Your task to perform on an android device: Open internet settings Image 0: 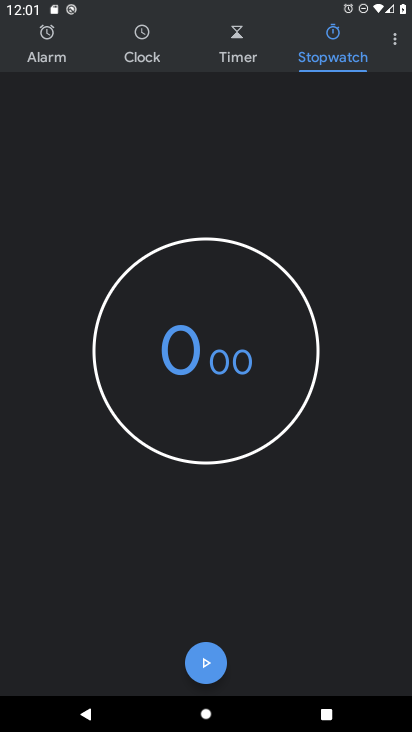
Step 0: press home button
Your task to perform on an android device: Open internet settings Image 1: 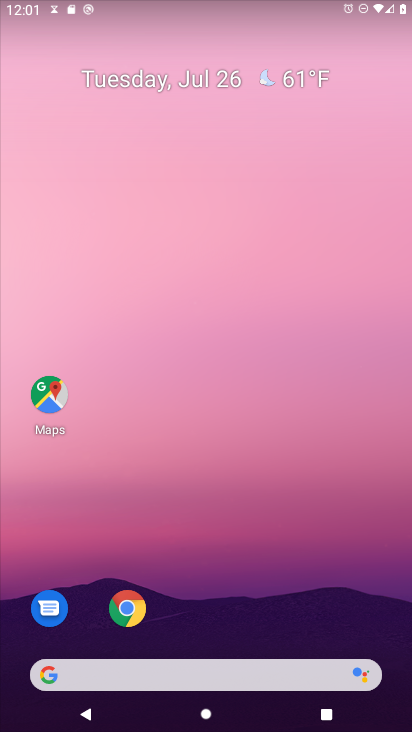
Step 1: drag from (197, 678) to (213, 56)
Your task to perform on an android device: Open internet settings Image 2: 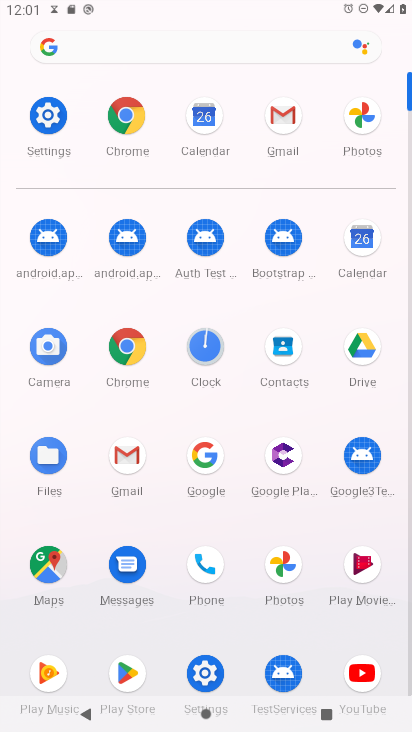
Step 2: click (49, 115)
Your task to perform on an android device: Open internet settings Image 3: 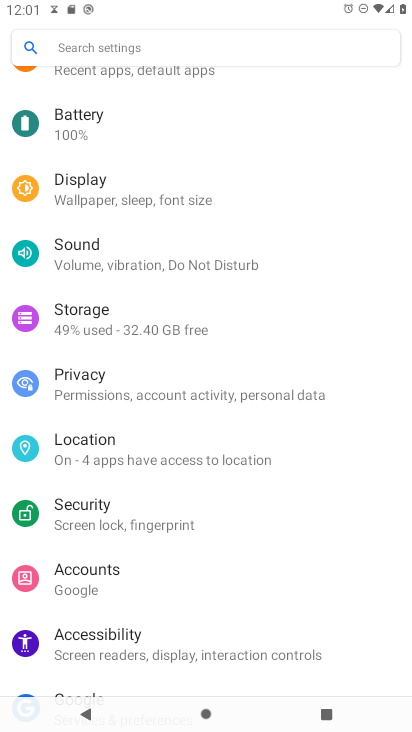
Step 3: drag from (153, 149) to (127, 420)
Your task to perform on an android device: Open internet settings Image 4: 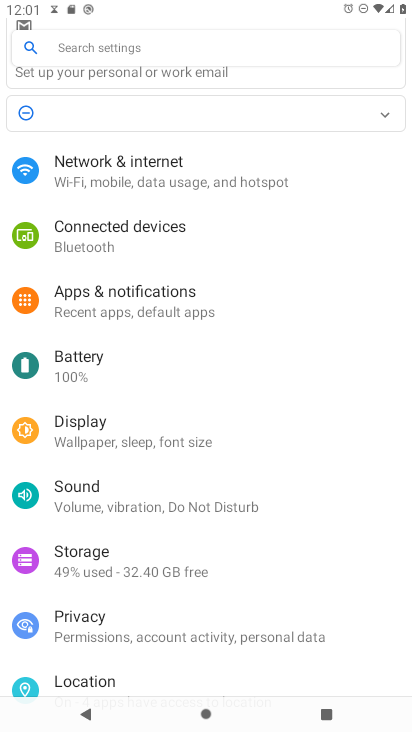
Step 4: click (162, 185)
Your task to perform on an android device: Open internet settings Image 5: 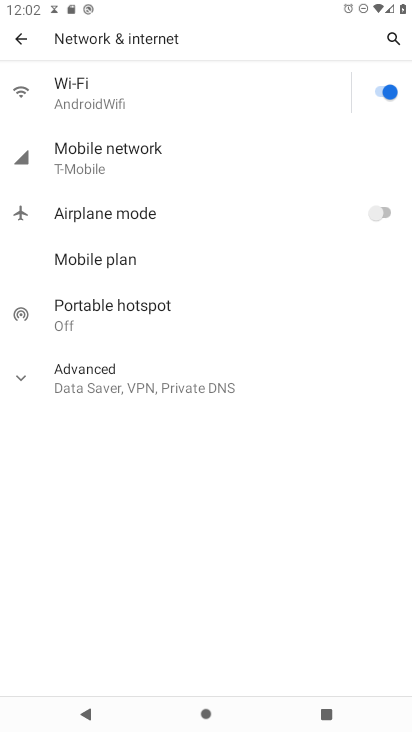
Step 5: task complete